Your task to perform on an android device: Go to notification settings Image 0: 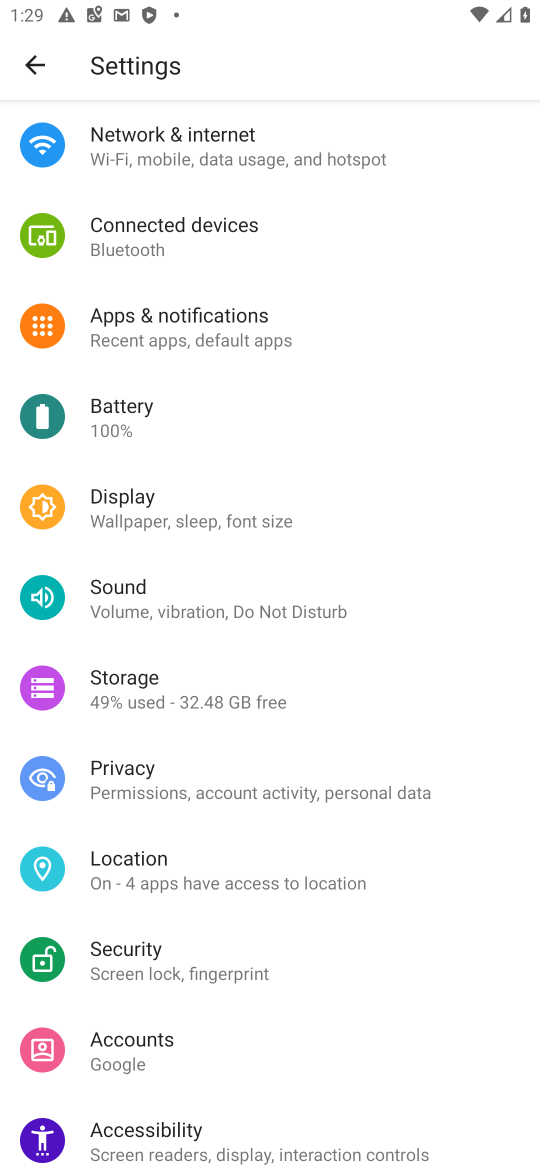
Step 0: click (333, 320)
Your task to perform on an android device: Go to notification settings Image 1: 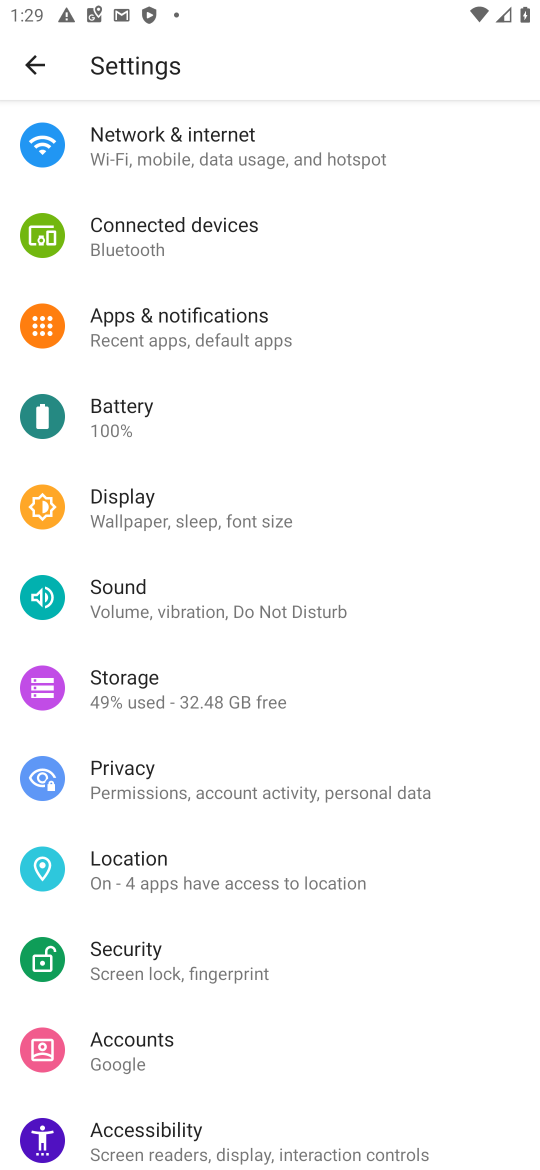
Step 1: click (201, 326)
Your task to perform on an android device: Go to notification settings Image 2: 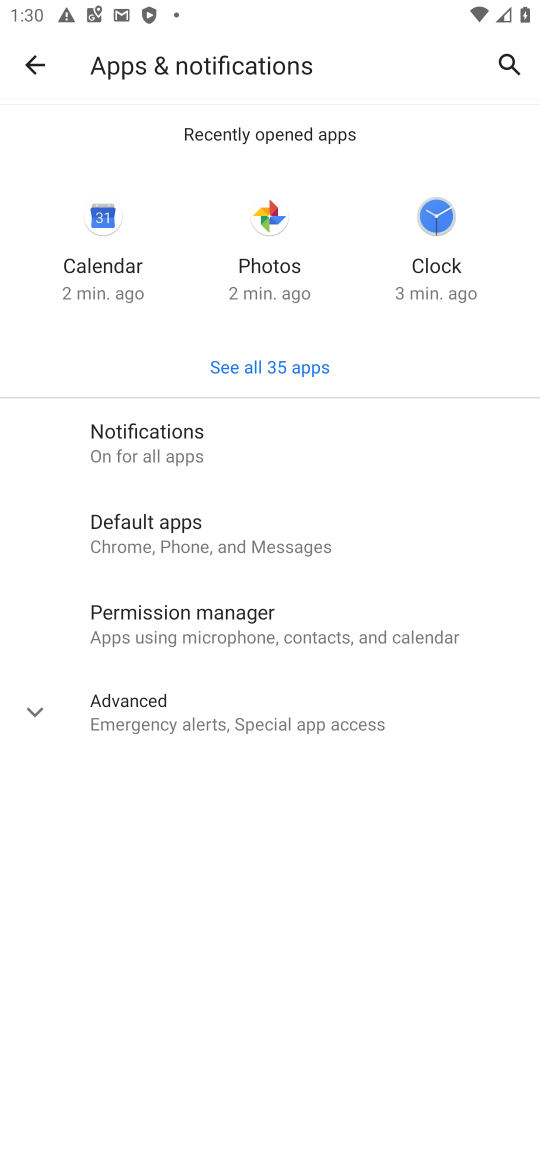
Step 2: task complete